Your task to perform on an android device: Open Youtube and go to the subscriptions tab Image 0: 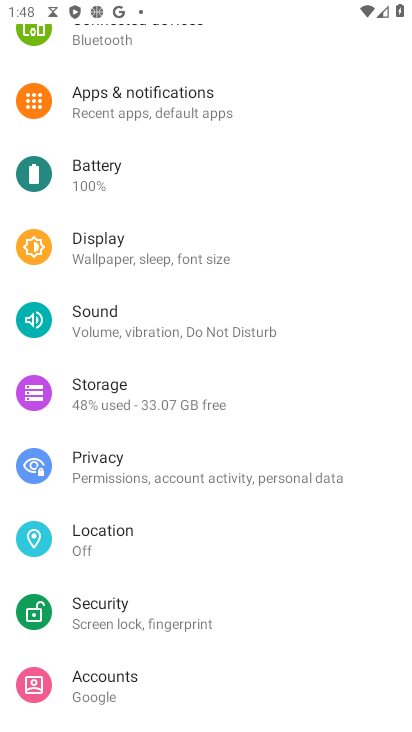
Step 0: press home button
Your task to perform on an android device: Open Youtube and go to the subscriptions tab Image 1: 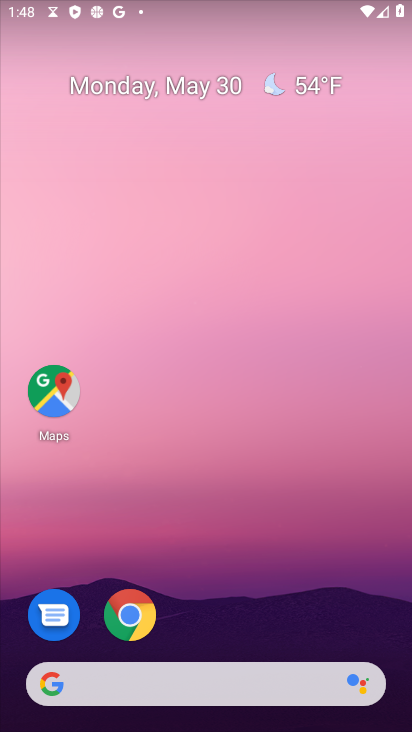
Step 1: drag from (281, 588) to (267, 90)
Your task to perform on an android device: Open Youtube and go to the subscriptions tab Image 2: 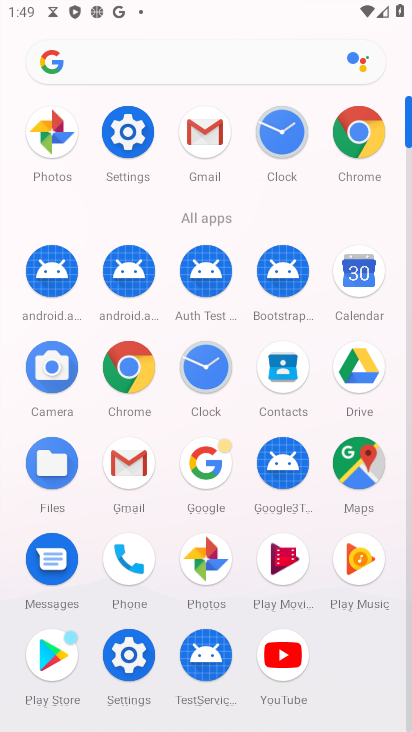
Step 2: click (274, 674)
Your task to perform on an android device: Open Youtube and go to the subscriptions tab Image 3: 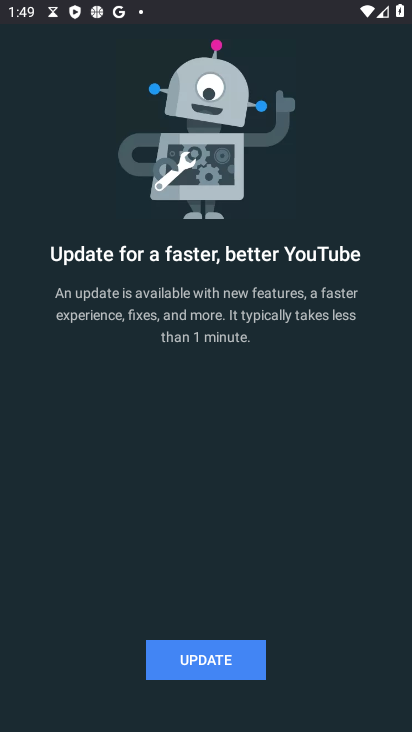
Step 3: click (225, 664)
Your task to perform on an android device: Open Youtube and go to the subscriptions tab Image 4: 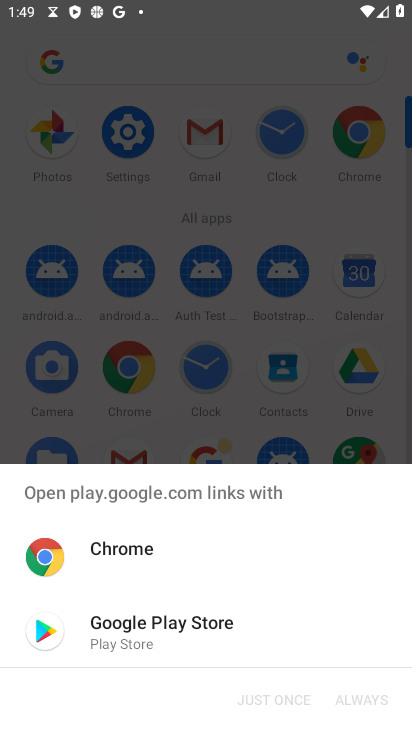
Step 4: click (136, 632)
Your task to perform on an android device: Open Youtube and go to the subscriptions tab Image 5: 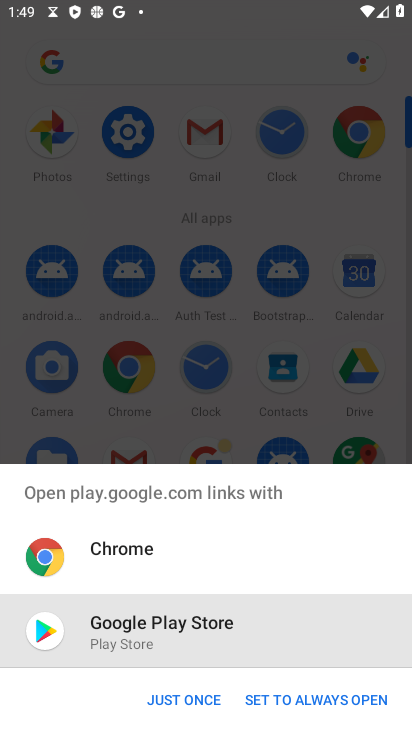
Step 5: click (184, 704)
Your task to perform on an android device: Open Youtube and go to the subscriptions tab Image 6: 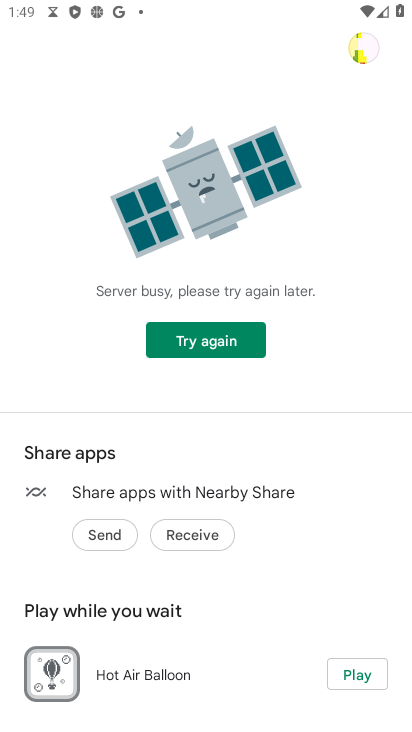
Step 6: click (192, 345)
Your task to perform on an android device: Open Youtube and go to the subscriptions tab Image 7: 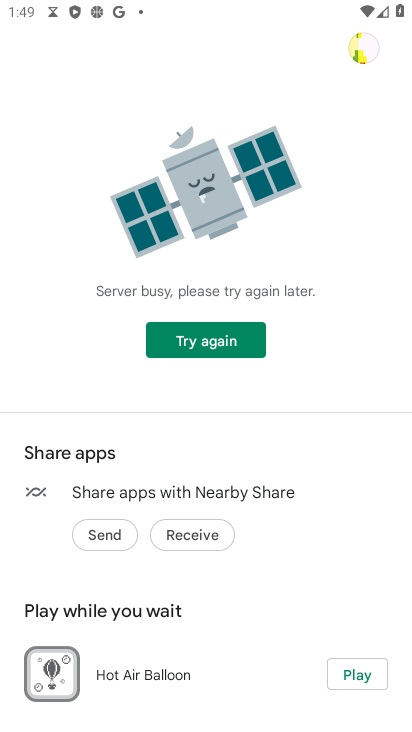
Step 7: task complete